Your task to perform on an android device: delete browsing data in the chrome app Image 0: 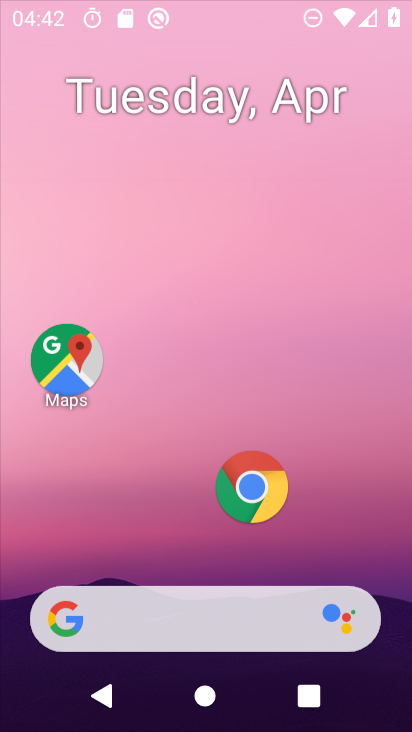
Step 0: drag from (185, 488) to (258, 68)
Your task to perform on an android device: delete browsing data in the chrome app Image 1: 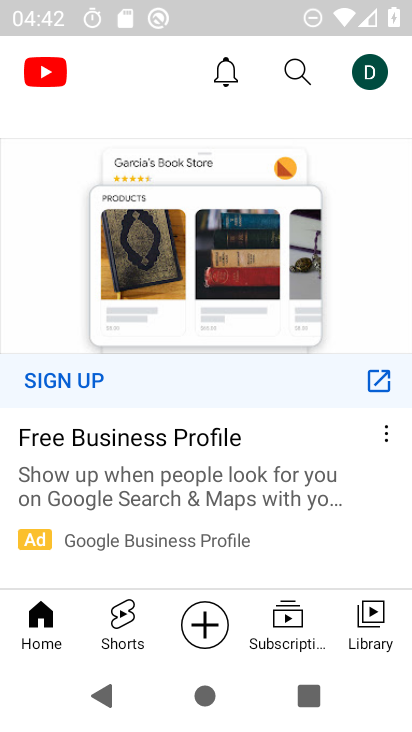
Step 1: press back button
Your task to perform on an android device: delete browsing data in the chrome app Image 2: 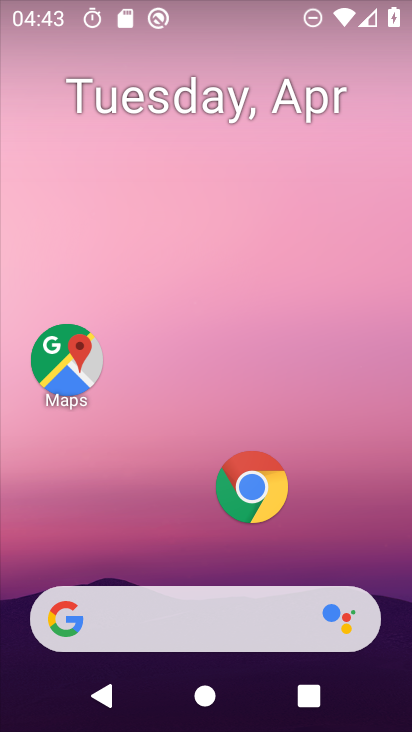
Step 2: click (274, 478)
Your task to perform on an android device: delete browsing data in the chrome app Image 3: 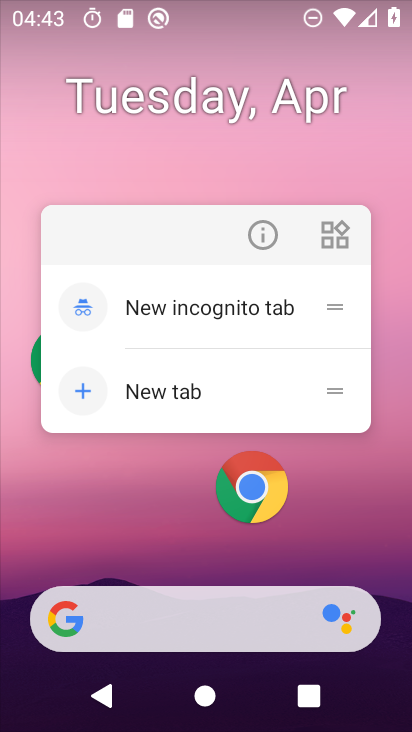
Step 3: click (261, 479)
Your task to perform on an android device: delete browsing data in the chrome app Image 4: 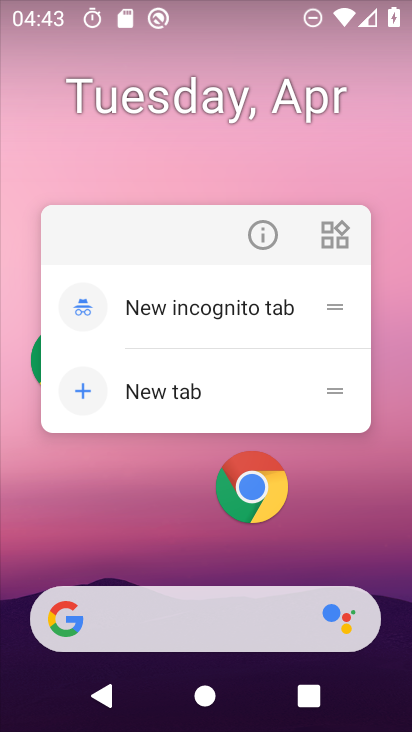
Step 4: click (249, 472)
Your task to perform on an android device: delete browsing data in the chrome app Image 5: 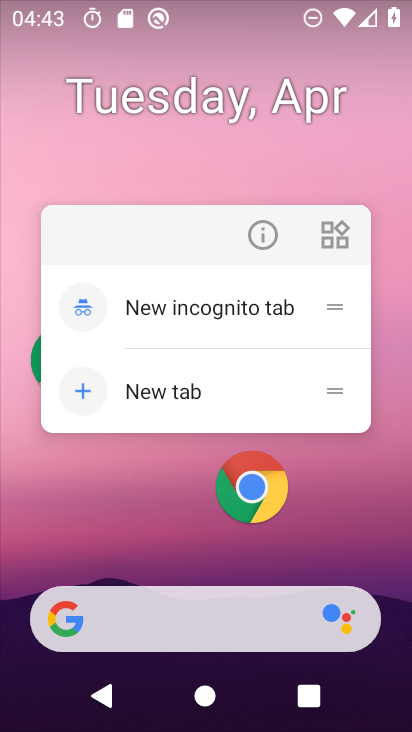
Step 5: click (246, 483)
Your task to perform on an android device: delete browsing data in the chrome app Image 6: 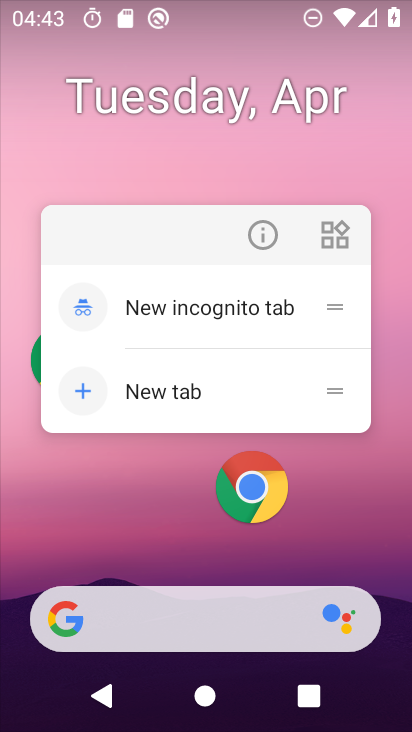
Step 6: click (254, 484)
Your task to perform on an android device: delete browsing data in the chrome app Image 7: 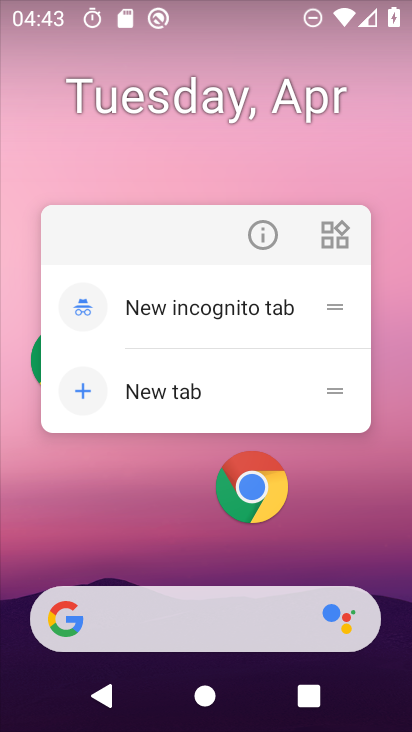
Step 7: click (265, 477)
Your task to perform on an android device: delete browsing data in the chrome app Image 8: 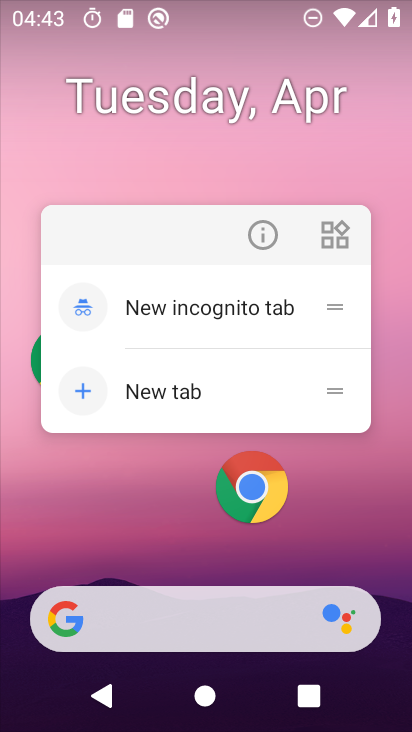
Step 8: click (249, 490)
Your task to perform on an android device: delete browsing data in the chrome app Image 9: 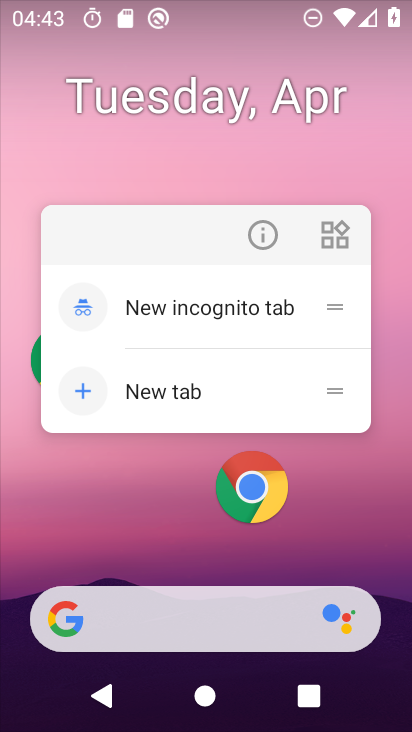
Step 9: click (252, 509)
Your task to perform on an android device: delete browsing data in the chrome app Image 10: 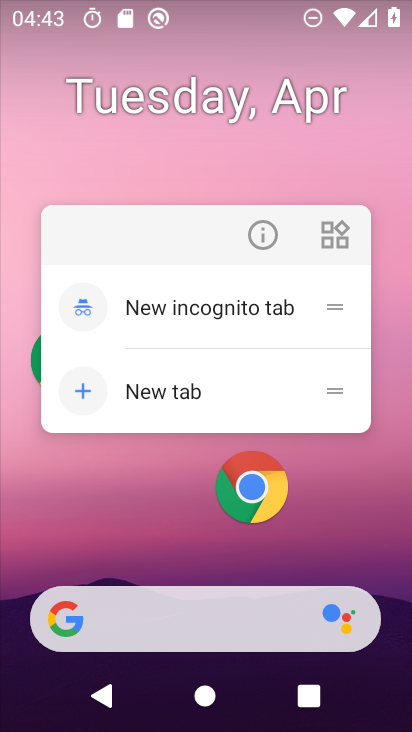
Step 10: click (269, 492)
Your task to perform on an android device: delete browsing data in the chrome app Image 11: 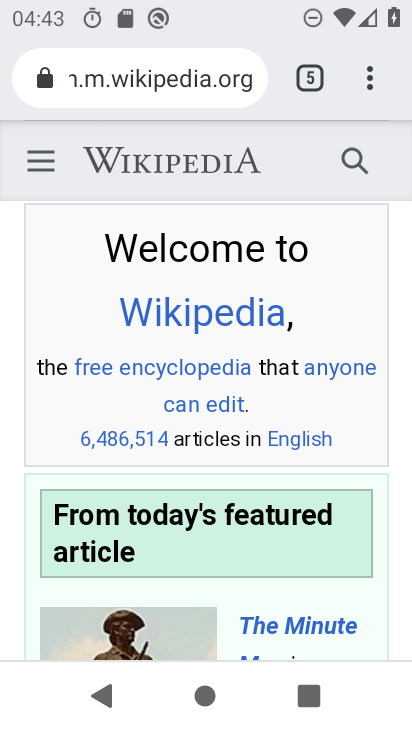
Step 11: task complete